Your task to perform on an android device: empty trash in the gmail app Image 0: 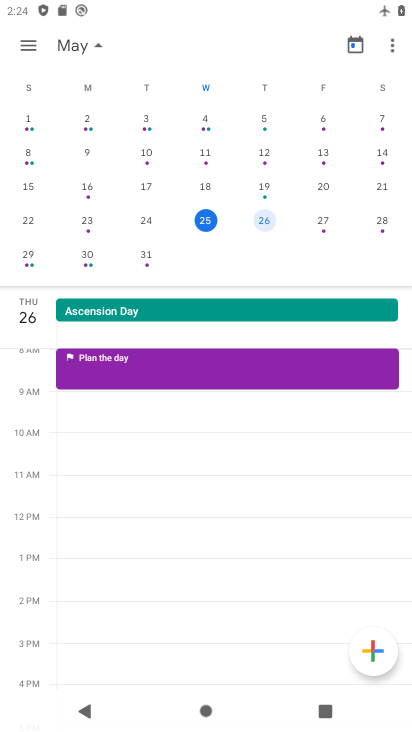
Step 0: press home button
Your task to perform on an android device: empty trash in the gmail app Image 1: 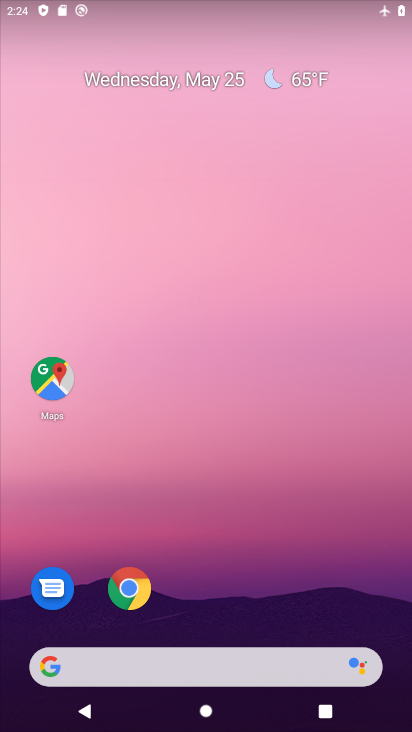
Step 1: drag from (80, 518) to (72, 182)
Your task to perform on an android device: empty trash in the gmail app Image 2: 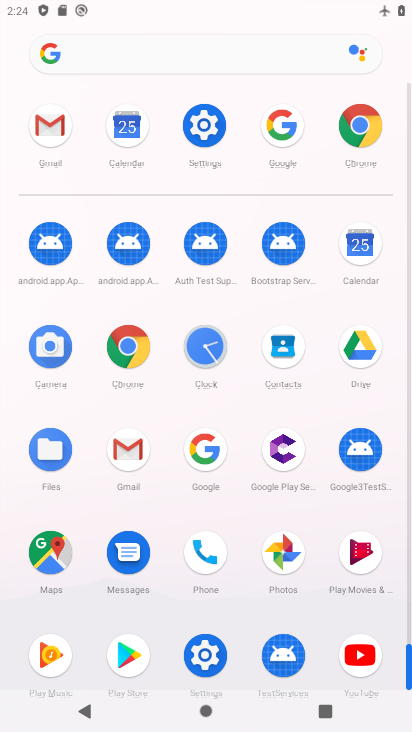
Step 2: click (53, 122)
Your task to perform on an android device: empty trash in the gmail app Image 3: 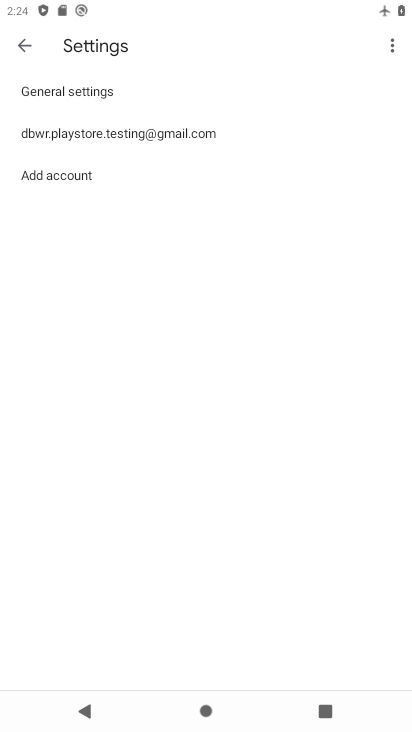
Step 3: click (22, 50)
Your task to perform on an android device: empty trash in the gmail app Image 4: 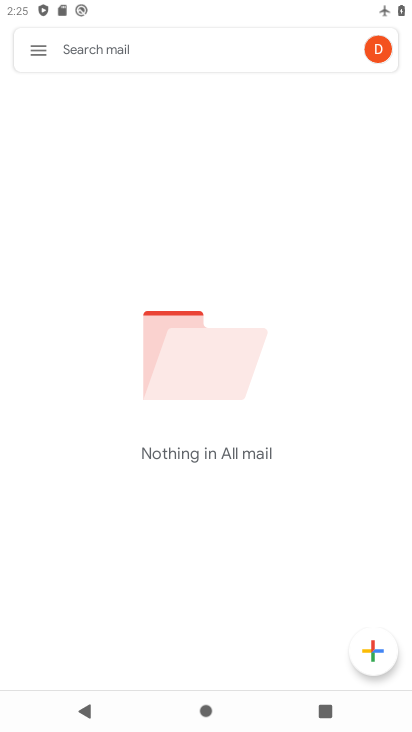
Step 4: click (32, 48)
Your task to perform on an android device: empty trash in the gmail app Image 5: 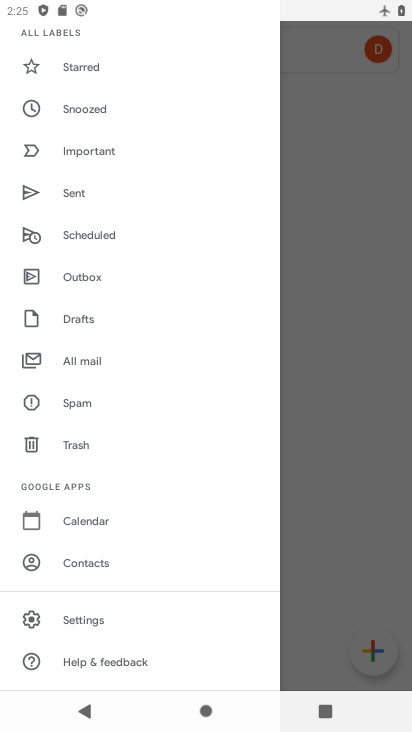
Step 5: click (95, 439)
Your task to perform on an android device: empty trash in the gmail app Image 6: 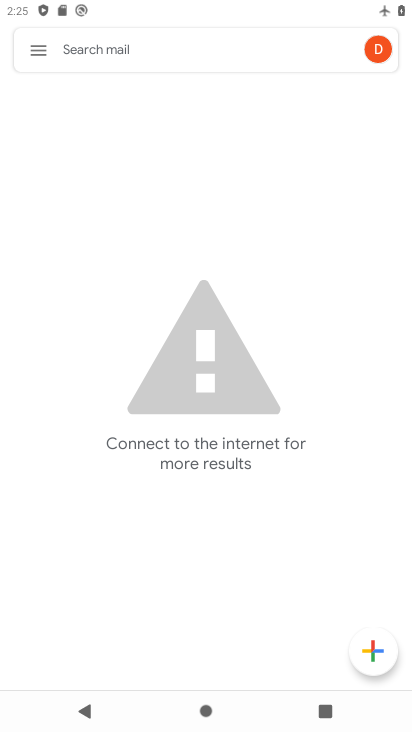
Step 6: task complete